Your task to perform on an android device: open a bookmark in the chrome app Image 0: 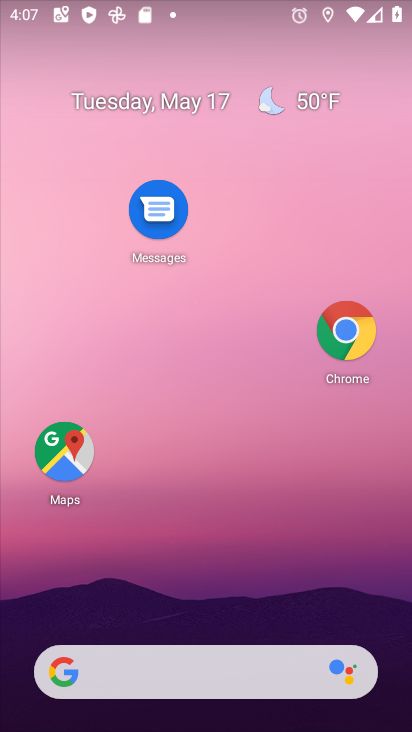
Step 0: click (355, 364)
Your task to perform on an android device: open a bookmark in the chrome app Image 1: 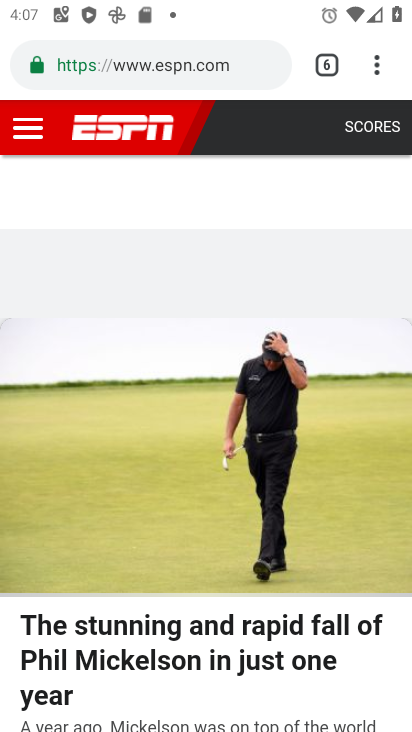
Step 1: click (384, 67)
Your task to perform on an android device: open a bookmark in the chrome app Image 2: 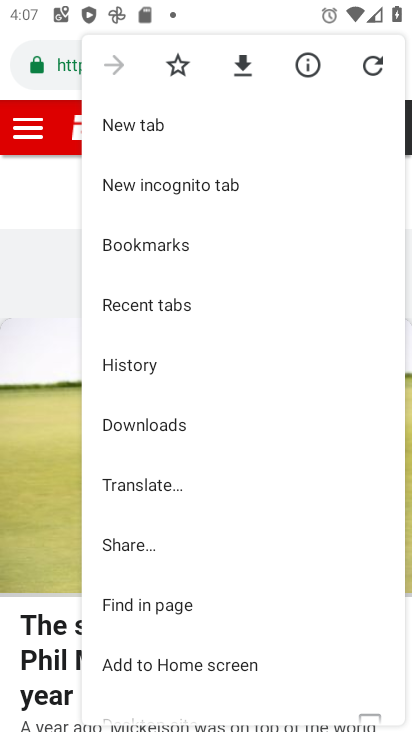
Step 2: click (182, 257)
Your task to perform on an android device: open a bookmark in the chrome app Image 3: 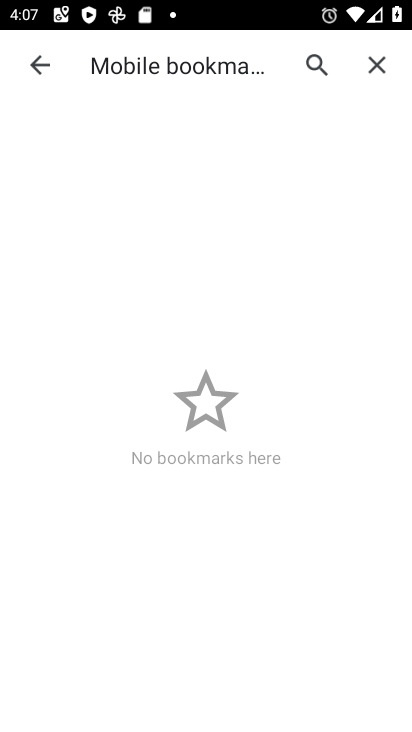
Step 3: task complete